Your task to perform on an android device: turn pop-ups off in chrome Image 0: 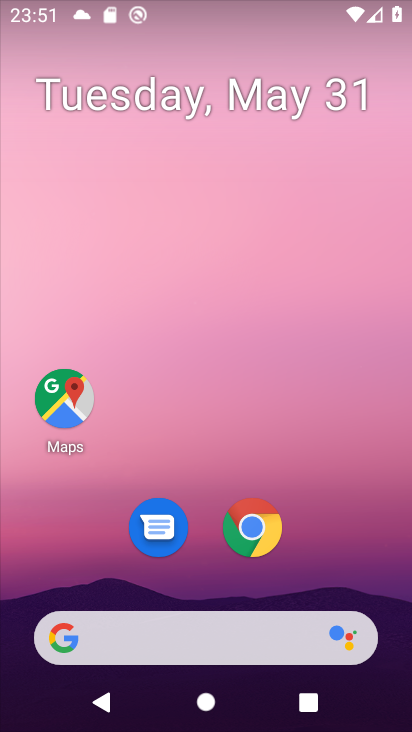
Step 0: click (267, 530)
Your task to perform on an android device: turn pop-ups off in chrome Image 1: 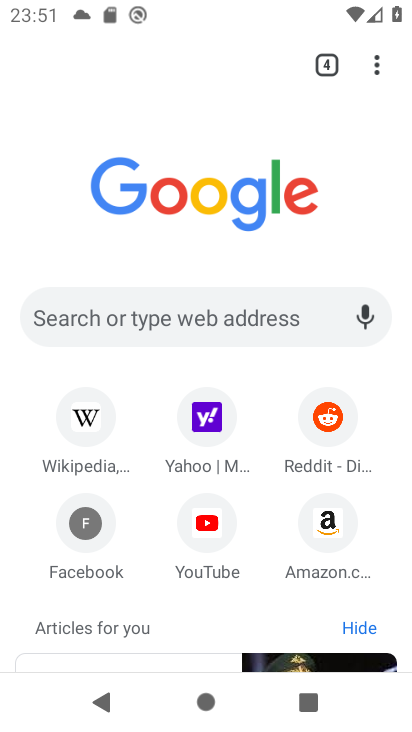
Step 1: click (383, 59)
Your task to perform on an android device: turn pop-ups off in chrome Image 2: 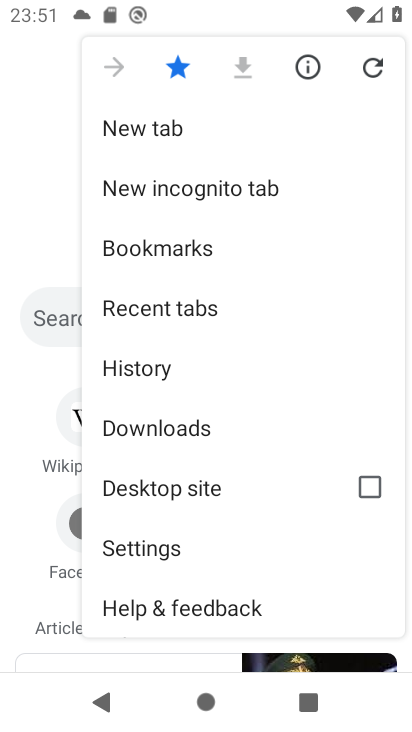
Step 2: drag from (237, 498) to (177, 36)
Your task to perform on an android device: turn pop-ups off in chrome Image 3: 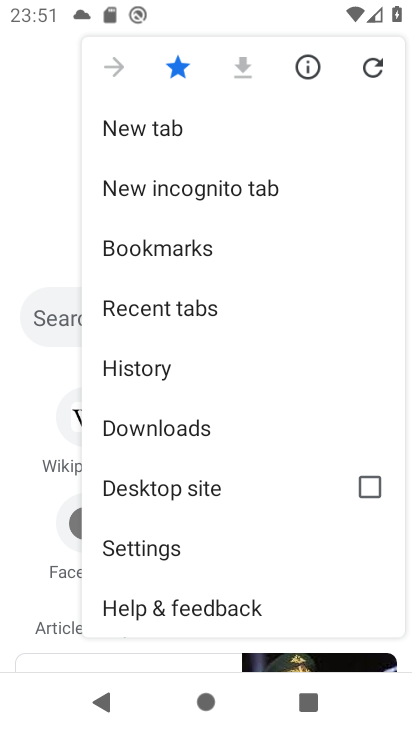
Step 3: click (180, 546)
Your task to perform on an android device: turn pop-ups off in chrome Image 4: 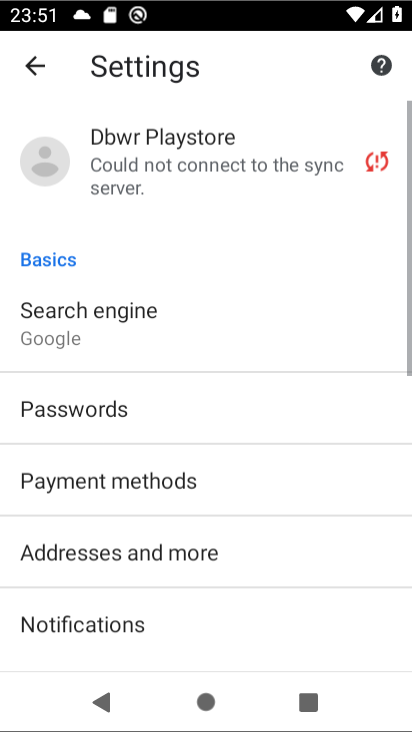
Step 4: drag from (316, 320) to (268, 153)
Your task to perform on an android device: turn pop-ups off in chrome Image 5: 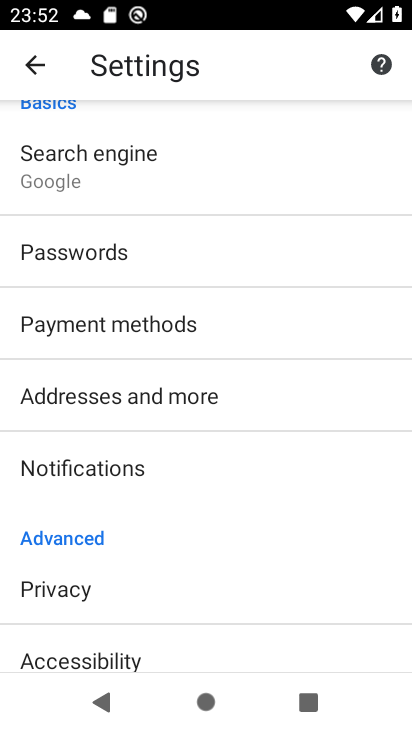
Step 5: drag from (194, 599) to (183, 224)
Your task to perform on an android device: turn pop-ups off in chrome Image 6: 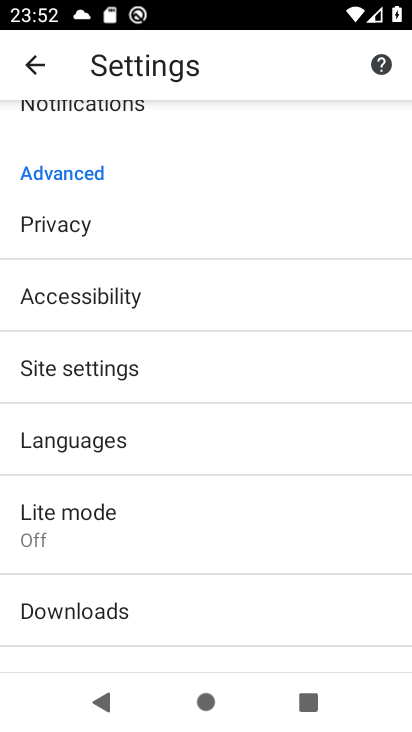
Step 6: click (104, 369)
Your task to perform on an android device: turn pop-ups off in chrome Image 7: 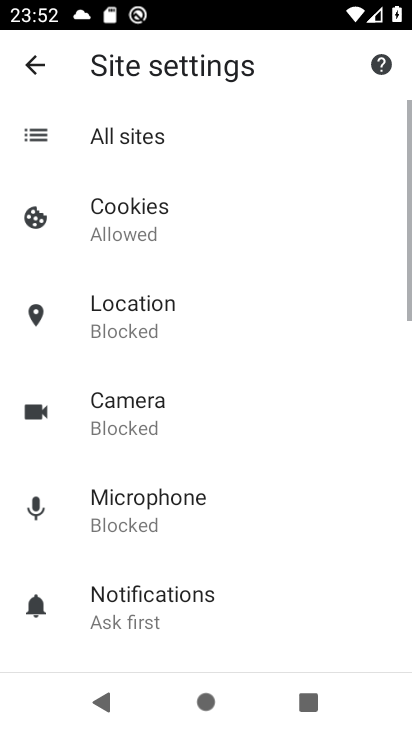
Step 7: drag from (217, 581) to (222, 170)
Your task to perform on an android device: turn pop-ups off in chrome Image 8: 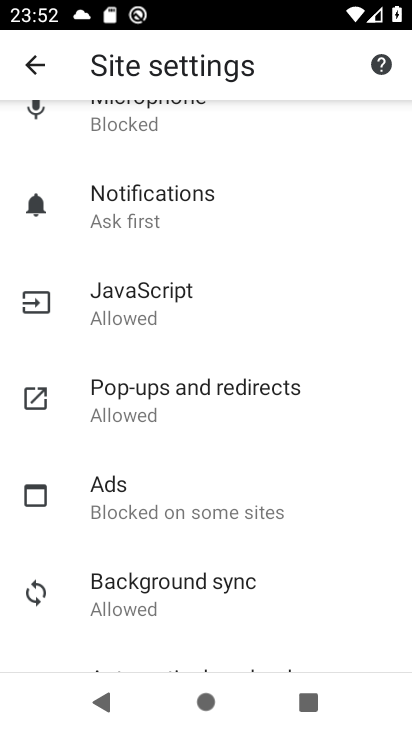
Step 8: click (209, 392)
Your task to perform on an android device: turn pop-ups off in chrome Image 9: 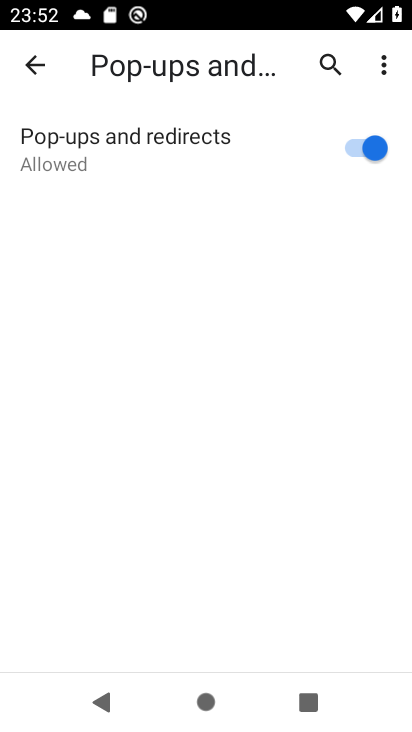
Step 9: click (375, 148)
Your task to perform on an android device: turn pop-ups off in chrome Image 10: 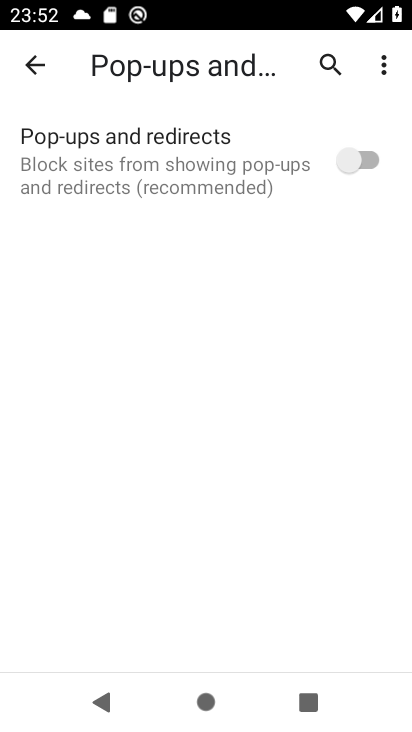
Step 10: task complete